Your task to perform on an android device: Open accessibility settings Image 0: 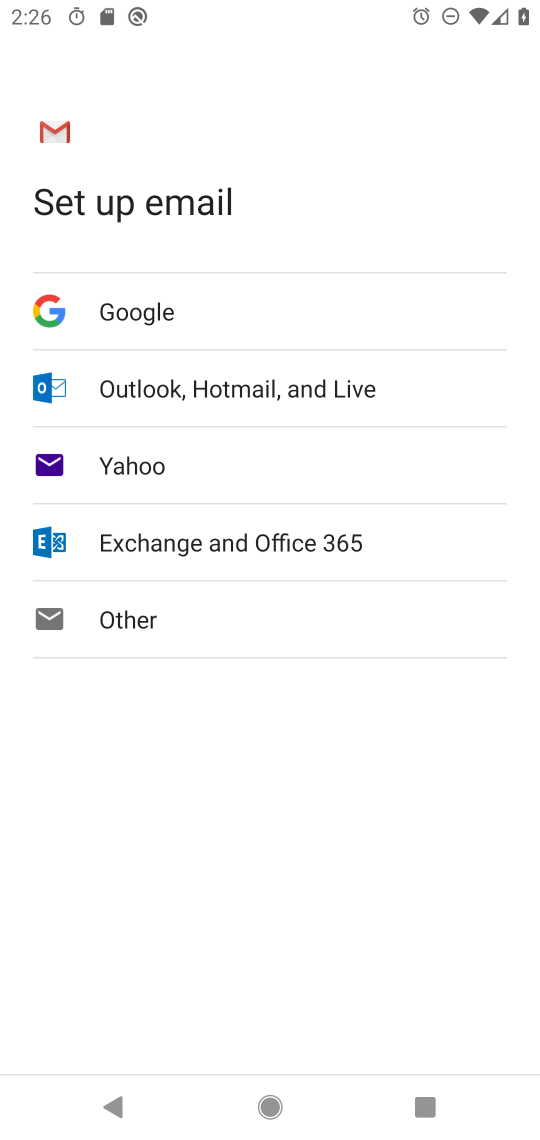
Step 0: press home button
Your task to perform on an android device: Open accessibility settings Image 1: 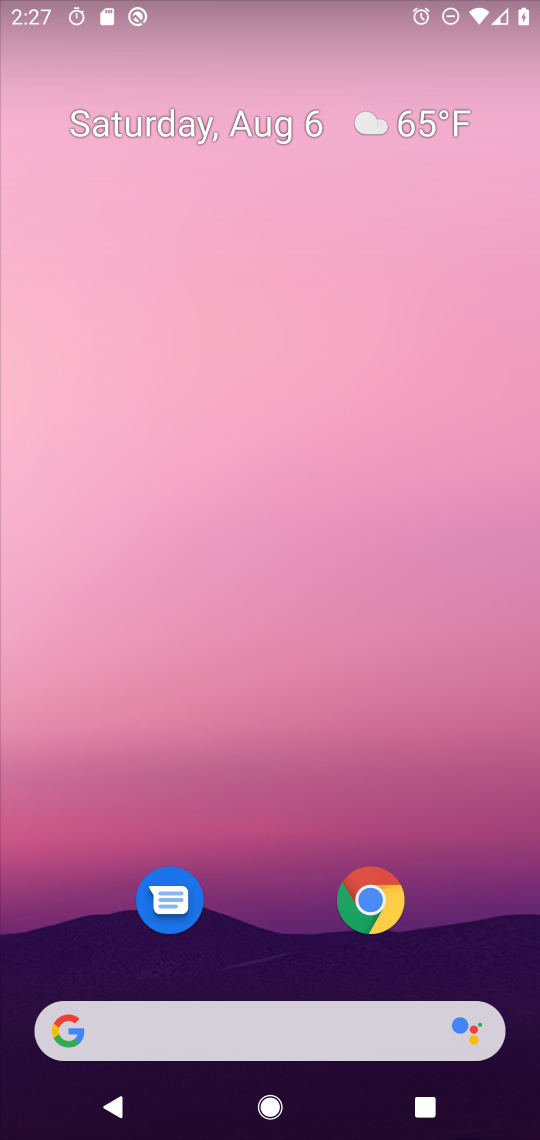
Step 1: drag from (301, 824) to (222, 133)
Your task to perform on an android device: Open accessibility settings Image 2: 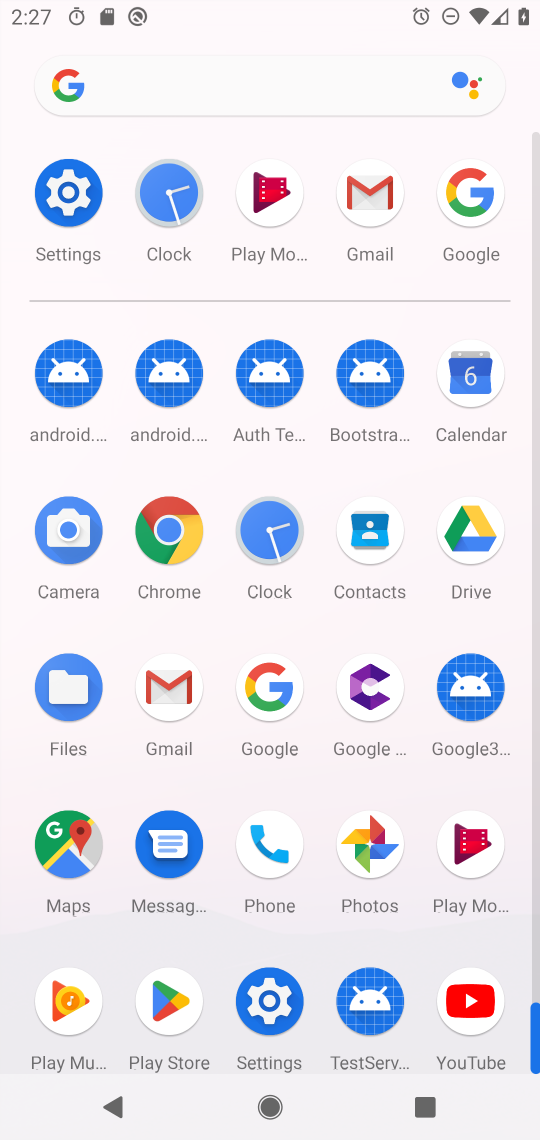
Step 2: click (68, 182)
Your task to perform on an android device: Open accessibility settings Image 3: 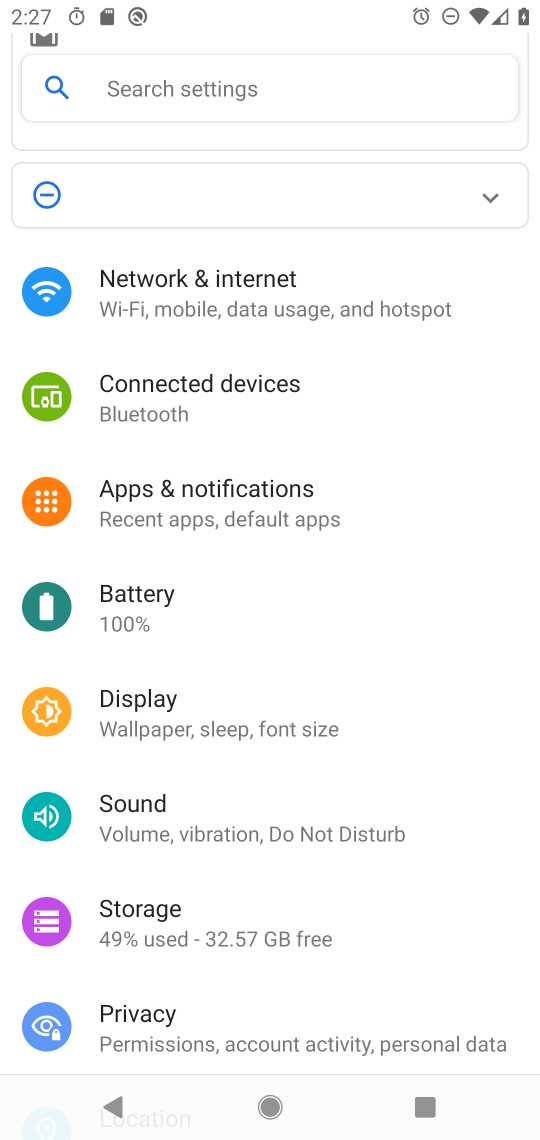
Step 3: drag from (147, 919) to (129, 567)
Your task to perform on an android device: Open accessibility settings Image 4: 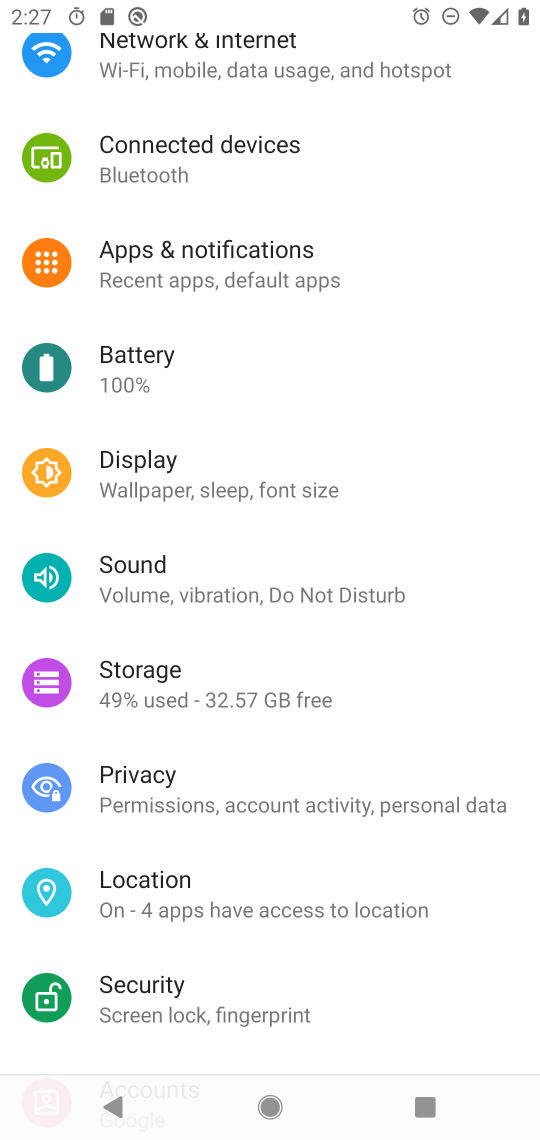
Step 4: drag from (197, 980) to (250, 629)
Your task to perform on an android device: Open accessibility settings Image 5: 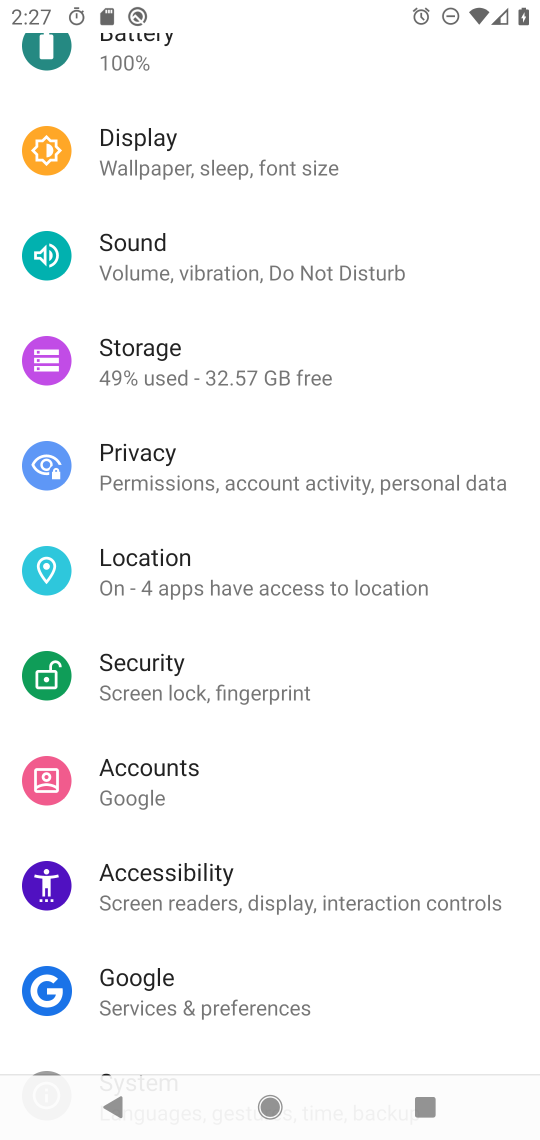
Step 5: click (207, 867)
Your task to perform on an android device: Open accessibility settings Image 6: 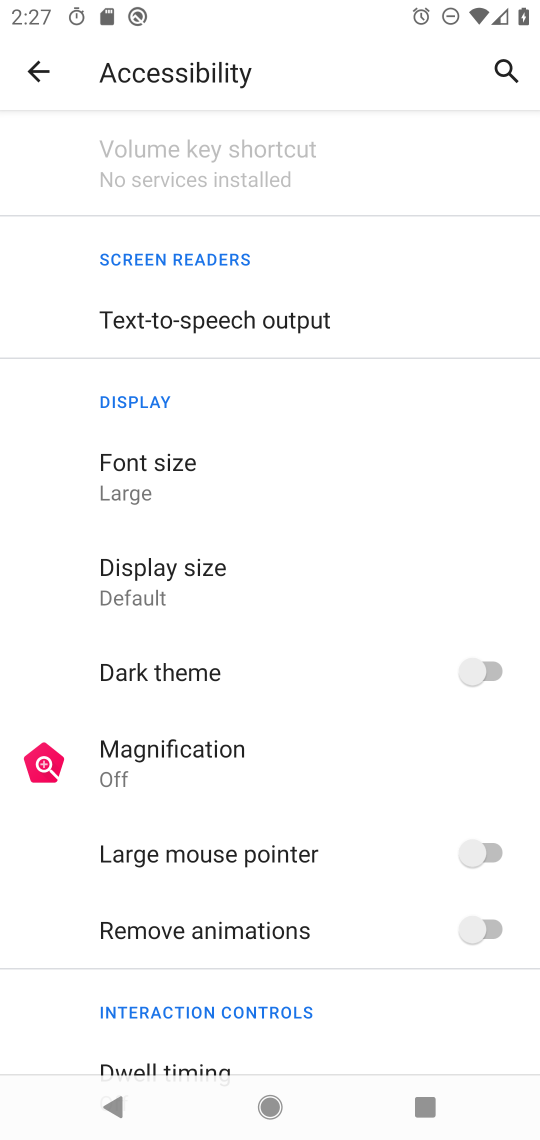
Step 6: task complete